Your task to perform on an android device: Go to battery settings Image 0: 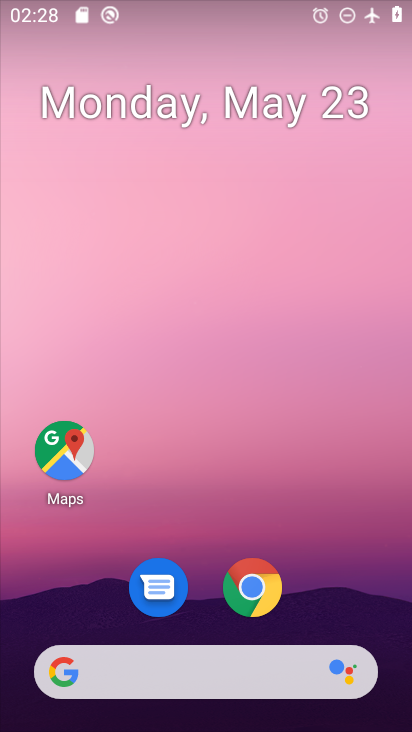
Step 0: drag from (378, 624) to (282, 183)
Your task to perform on an android device: Go to battery settings Image 1: 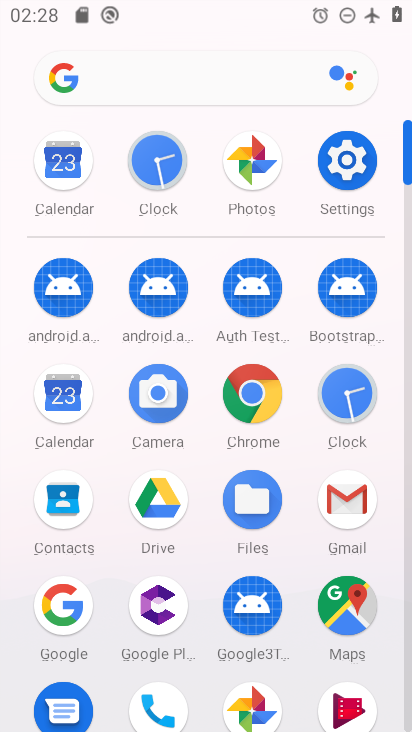
Step 1: click (359, 195)
Your task to perform on an android device: Go to battery settings Image 2: 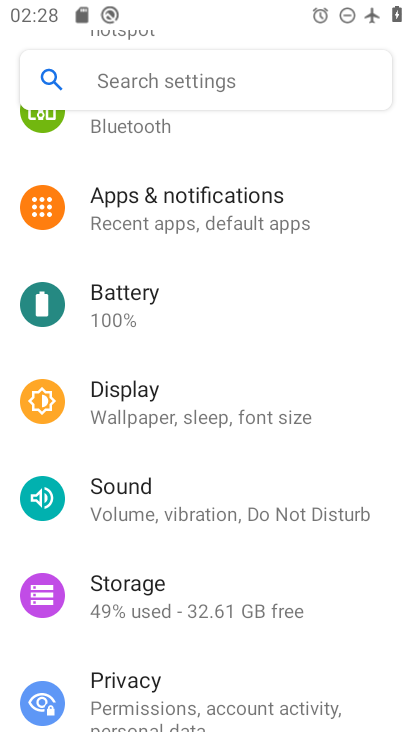
Step 2: click (126, 321)
Your task to perform on an android device: Go to battery settings Image 3: 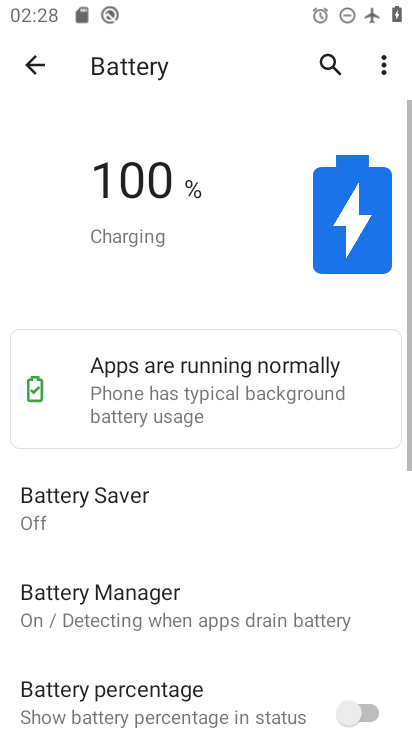
Step 3: task complete